Your task to perform on an android device: Open Google Chrome and open the bookmarks view Image 0: 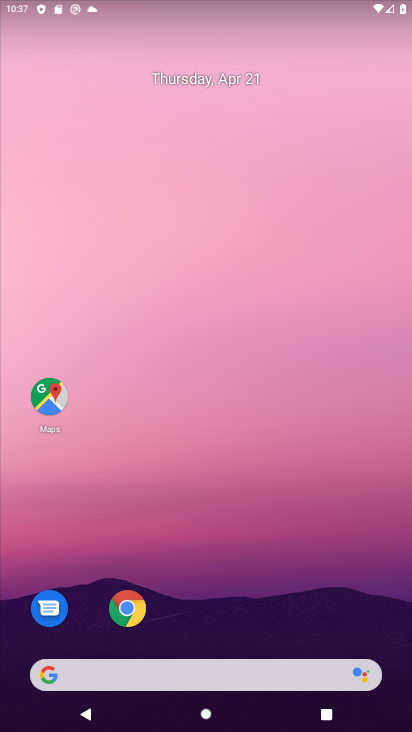
Step 0: click (124, 613)
Your task to perform on an android device: Open Google Chrome and open the bookmarks view Image 1: 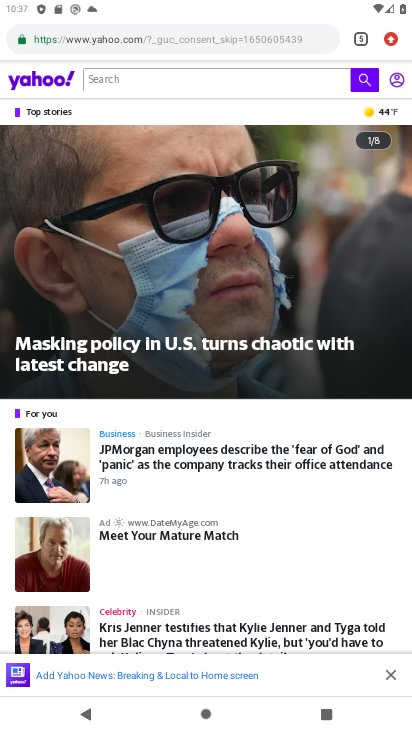
Step 1: task complete